Your task to perform on an android device: change notifications settings Image 0: 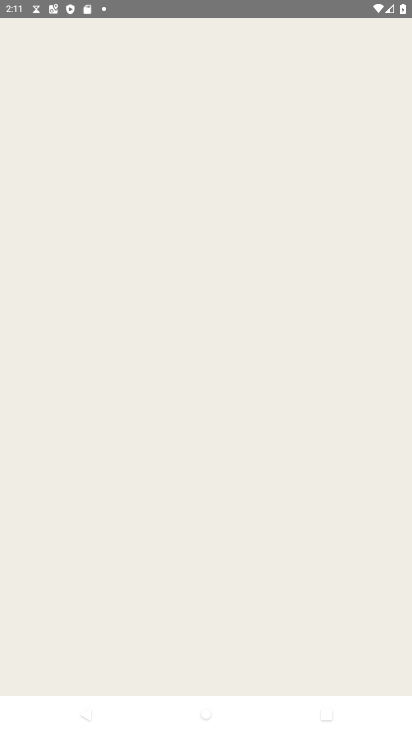
Step 0: press home button
Your task to perform on an android device: change notifications settings Image 1: 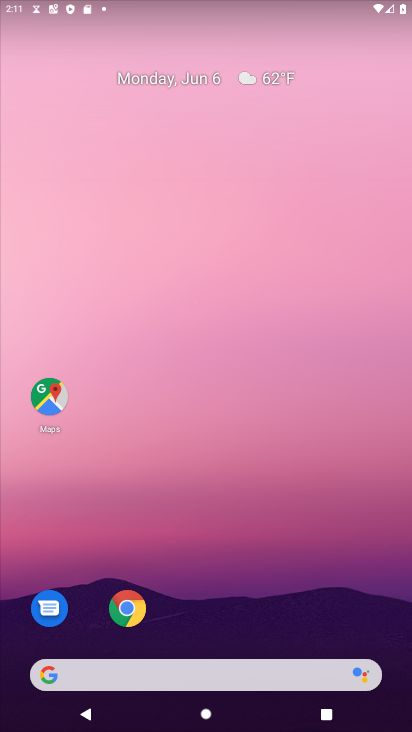
Step 1: drag from (275, 572) to (268, 1)
Your task to perform on an android device: change notifications settings Image 2: 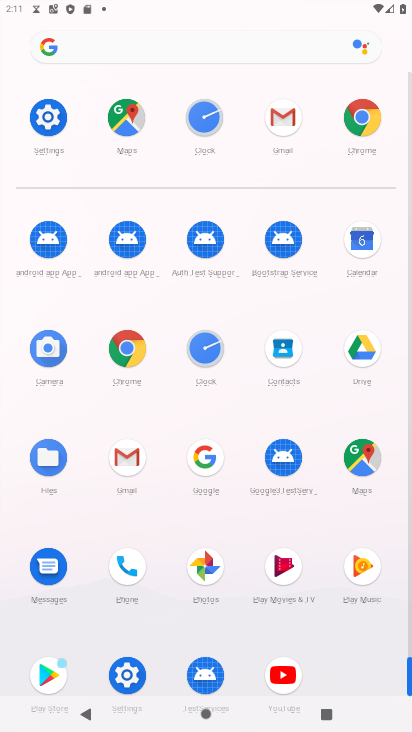
Step 2: click (47, 124)
Your task to perform on an android device: change notifications settings Image 3: 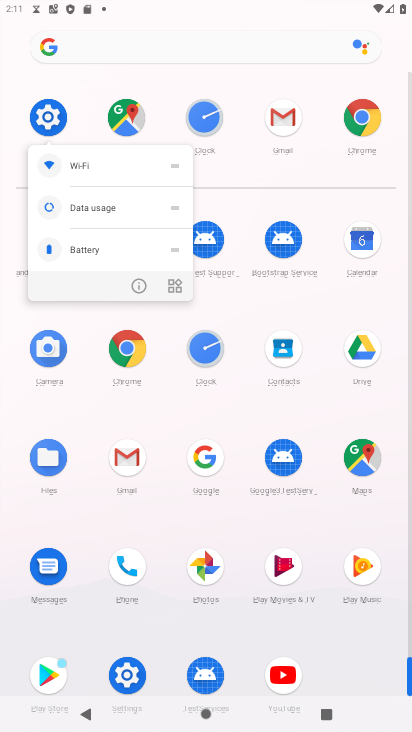
Step 3: click (51, 106)
Your task to perform on an android device: change notifications settings Image 4: 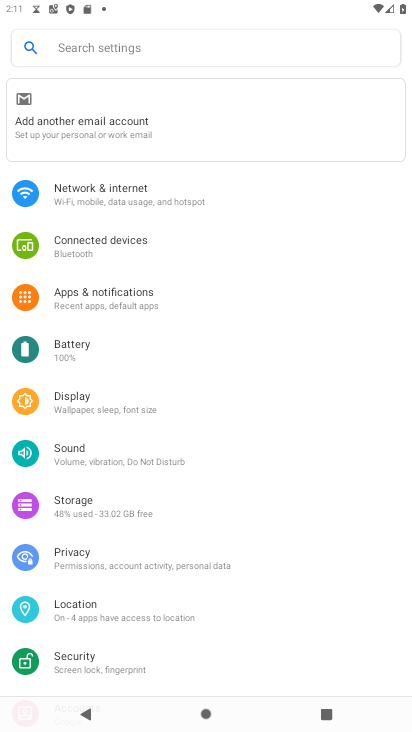
Step 4: click (108, 290)
Your task to perform on an android device: change notifications settings Image 5: 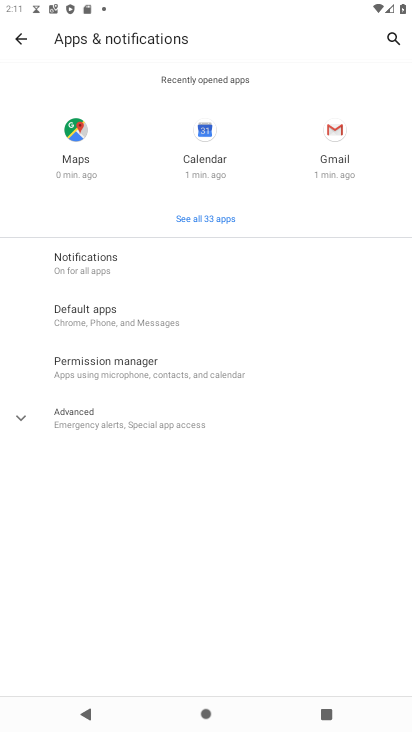
Step 5: click (68, 259)
Your task to perform on an android device: change notifications settings Image 6: 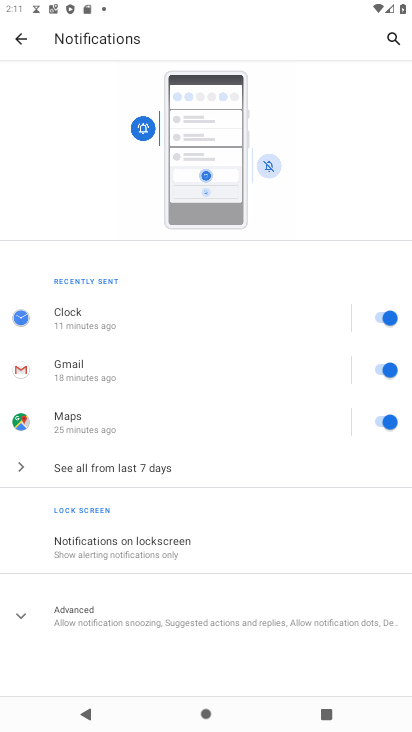
Step 6: task complete